Your task to perform on an android device: Open calendar and show me the first week of next month Image 0: 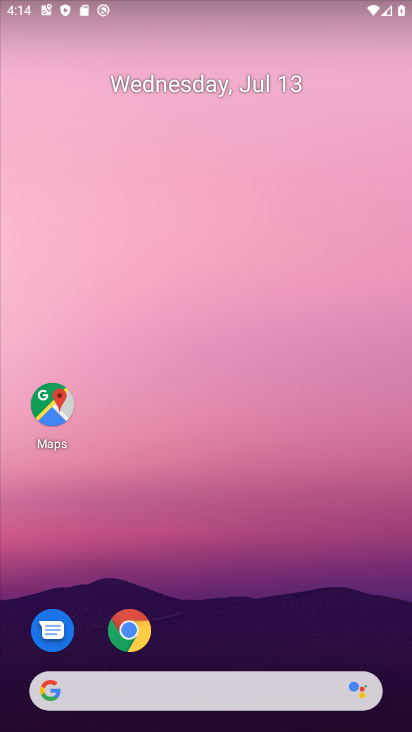
Step 0: drag from (336, 489) to (382, 11)
Your task to perform on an android device: Open calendar and show me the first week of next month Image 1: 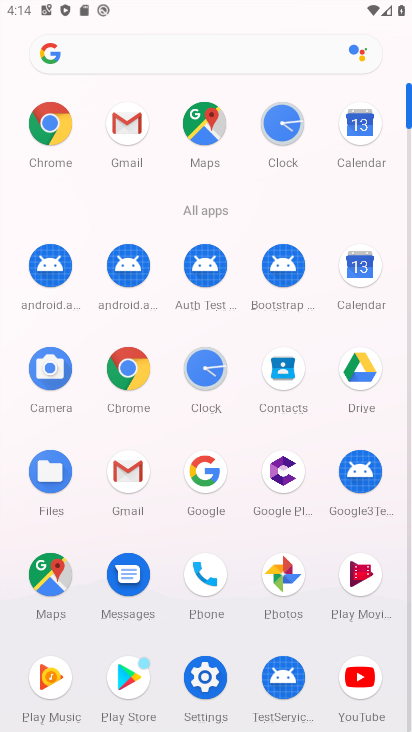
Step 1: click (368, 273)
Your task to perform on an android device: Open calendar and show me the first week of next month Image 2: 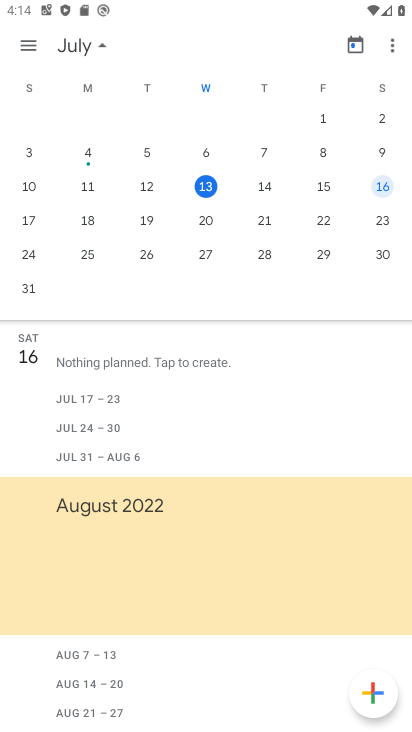
Step 2: drag from (325, 195) to (9, 177)
Your task to perform on an android device: Open calendar and show me the first week of next month Image 3: 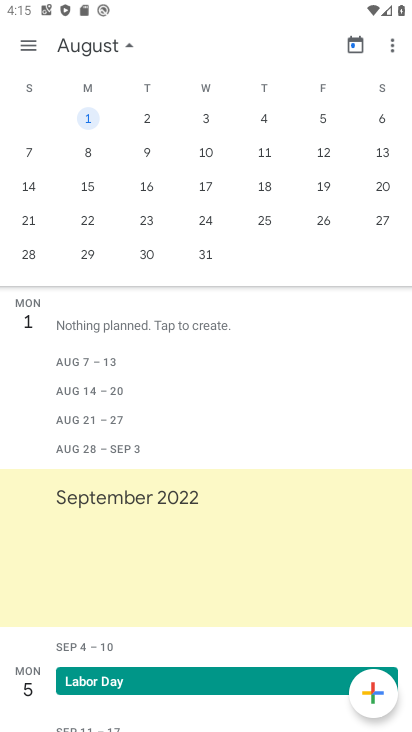
Step 3: click (258, 113)
Your task to perform on an android device: Open calendar and show me the first week of next month Image 4: 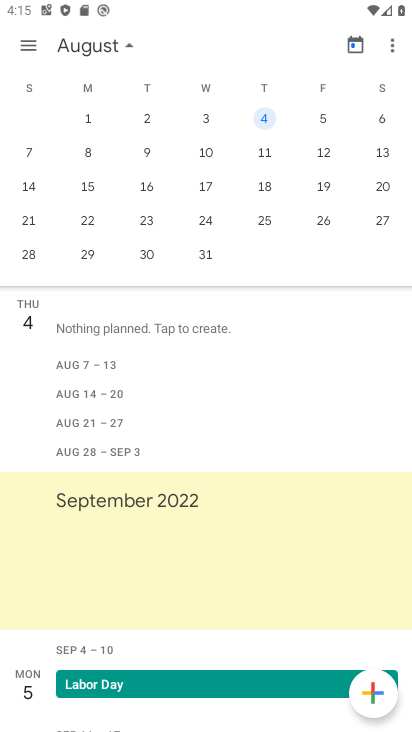
Step 4: click (29, 40)
Your task to perform on an android device: Open calendar and show me the first week of next month Image 5: 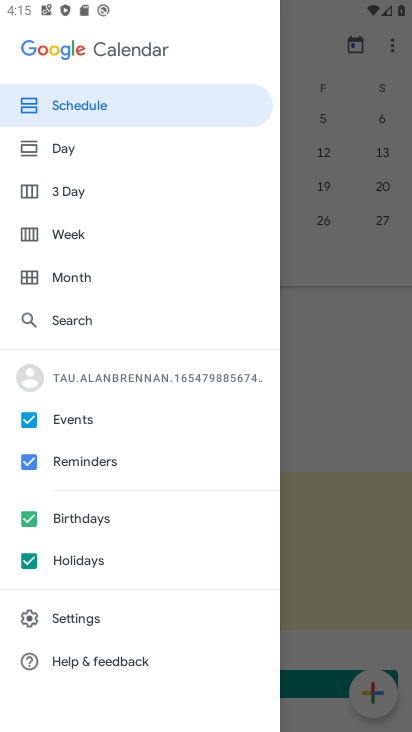
Step 5: click (84, 233)
Your task to perform on an android device: Open calendar and show me the first week of next month Image 6: 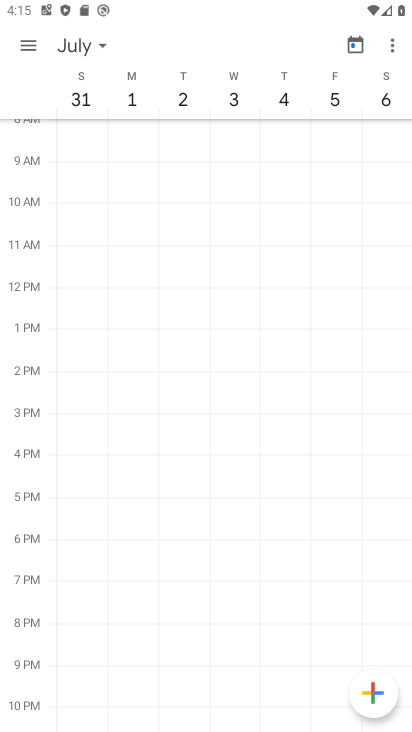
Step 6: task complete